Your task to perform on an android device: Open the phone app and click the voicemail tab. Image 0: 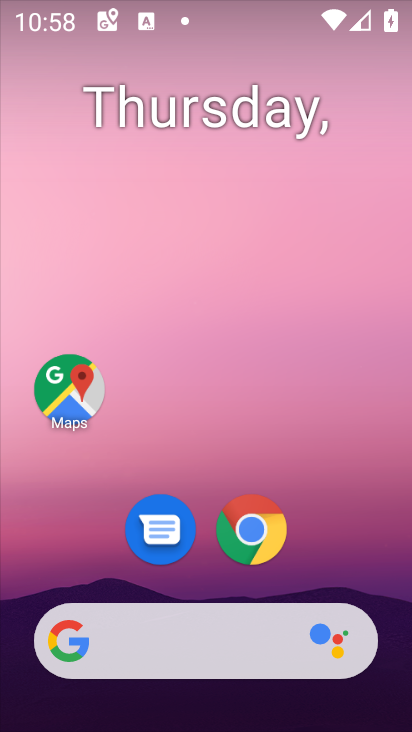
Step 0: drag from (216, 609) to (319, 19)
Your task to perform on an android device: Open the phone app and click the voicemail tab. Image 1: 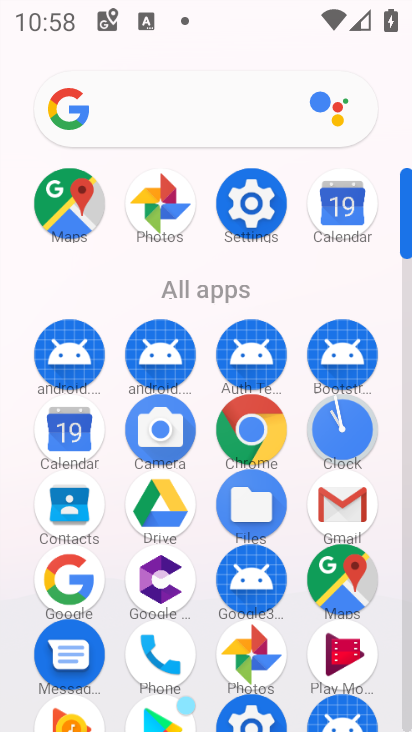
Step 1: drag from (278, 522) to (278, 203)
Your task to perform on an android device: Open the phone app and click the voicemail tab. Image 2: 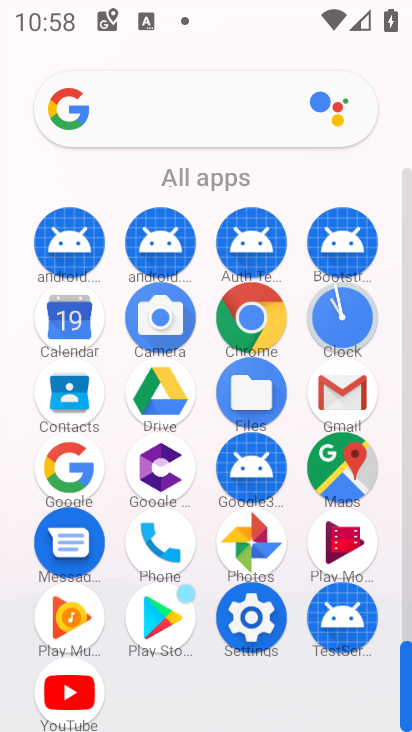
Step 2: click (178, 556)
Your task to perform on an android device: Open the phone app and click the voicemail tab. Image 3: 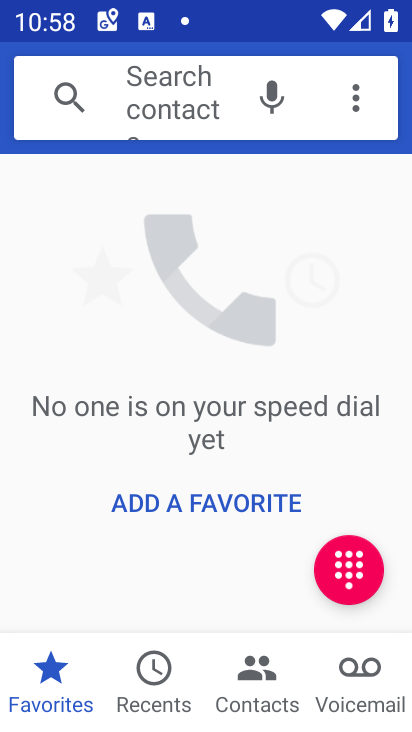
Step 3: click (353, 689)
Your task to perform on an android device: Open the phone app and click the voicemail tab. Image 4: 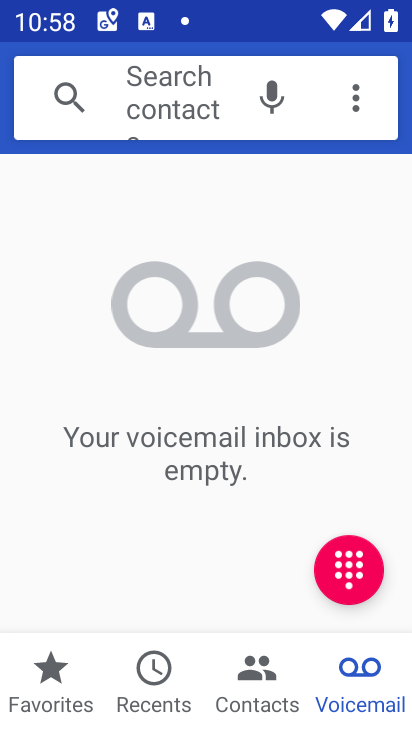
Step 4: task complete